Your task to perform on an android device: Open battery settings Image 0: 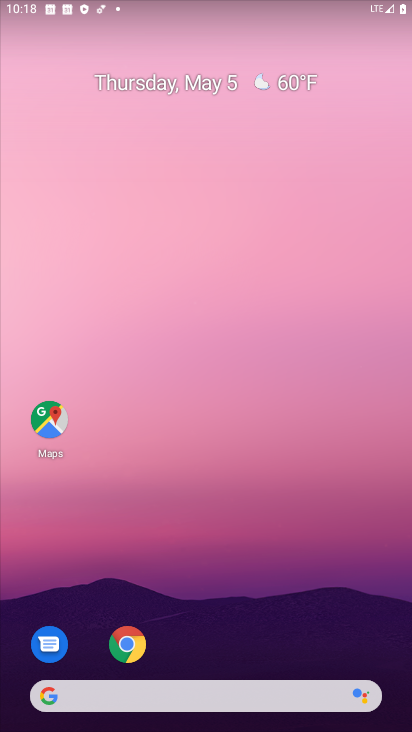
Step 0: drag from (173, 650) to (230, 87)
Your task to perform on an android device: Open battery settings Image 1: 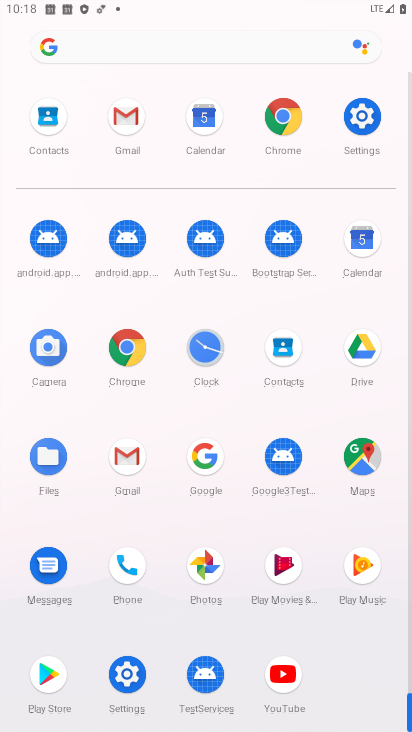
Step 1: click (133, 675)
Your task to perform on an android device: Open battery settings Image 2: 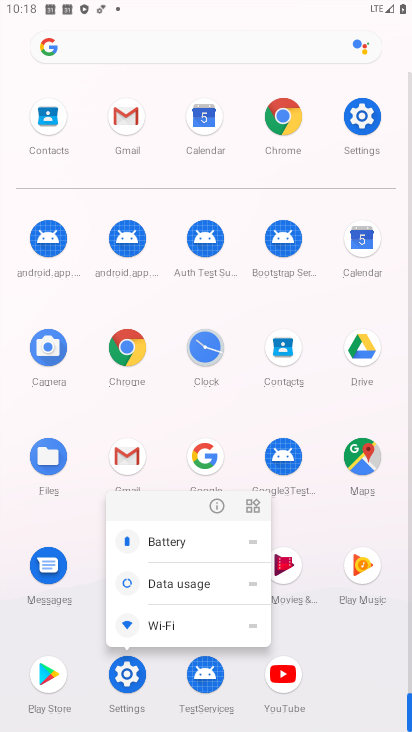
Step 2: click (211, 504)
Your task to perform on an android device: Open battery settings Image 3: 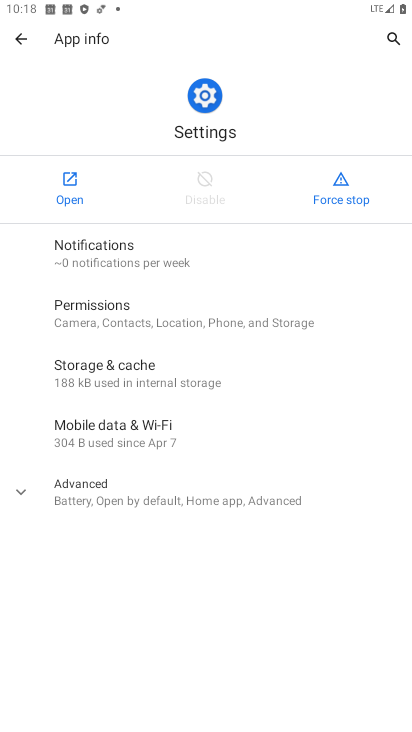
Step 3: click (64, 173)
Your task to perform on an android device: Open battery settings Image 4: 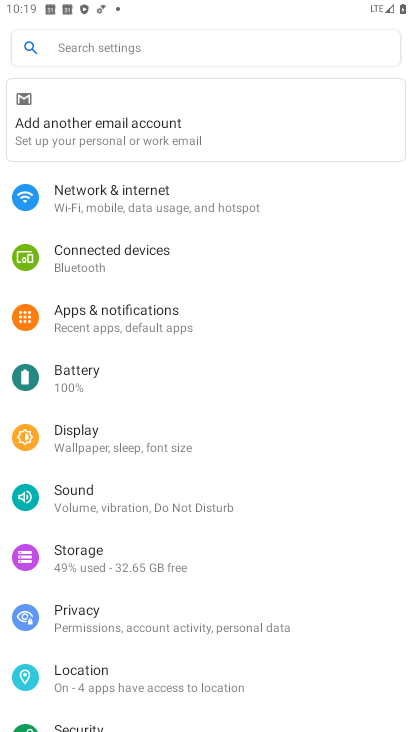
Step 4: click (138, 349)
Your task to perform on an android device: Open battery settings Image 5: 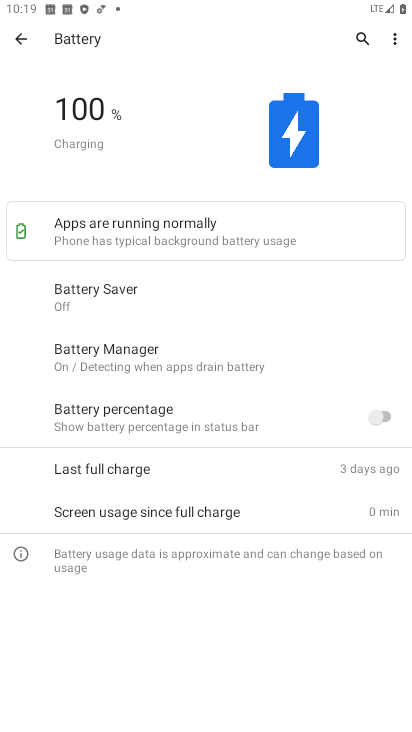
Step 5: task complete